Your task to perform on an android device: Go to privacy settings Image 0: 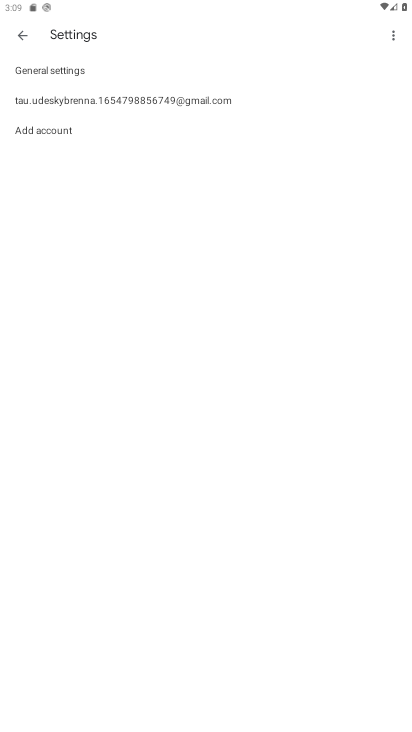
Step 0: press home button
Your task to perform on an android device: Go to privacy settings Image 1: 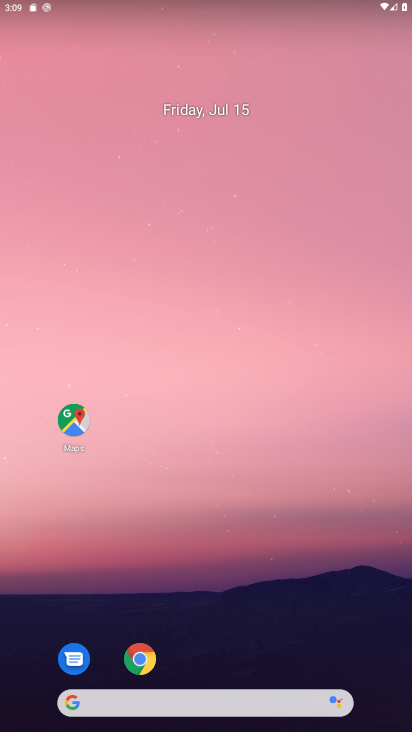
Step 1: drag from (346, 663) to (288, 138)
Your task to perform on an android device: Go to privacy settings Image 2: 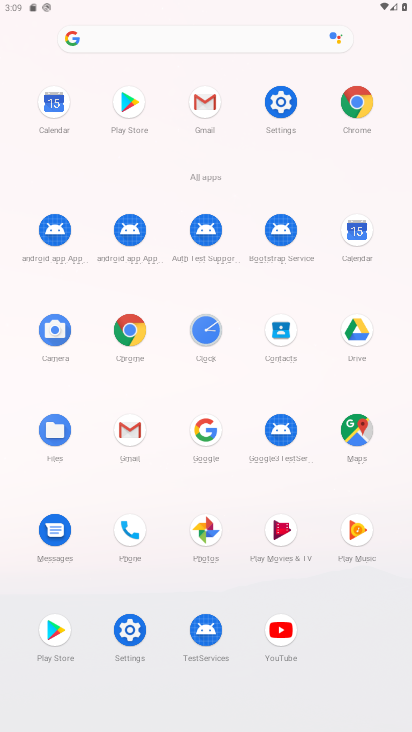
Step 2: click (126, 625)
Your task to perform on an android device: Go to privacy settings Image 3: 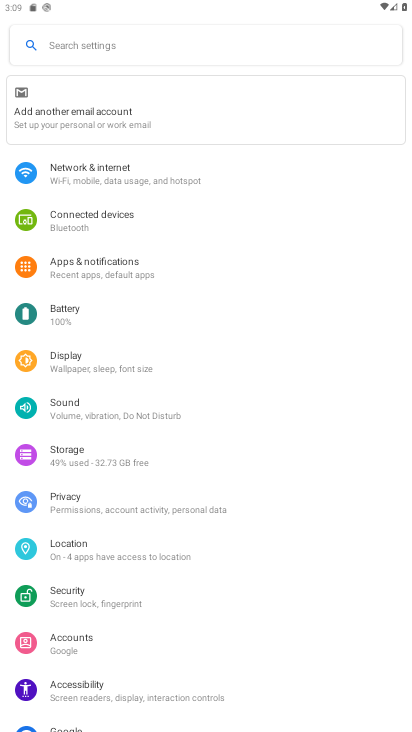
Step 3: click (76, 498)
Your task to perform on an android device: Go to privacy settings Image 4: 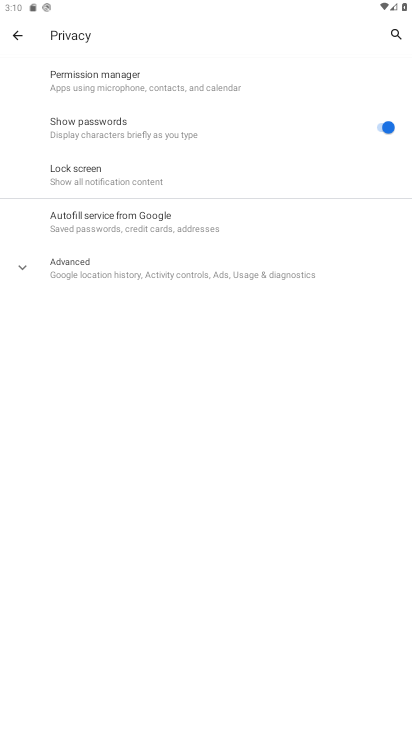
Step 4: task complete